Your task to perform on an android device: turn off priority inbox in the gmail app Image 0: 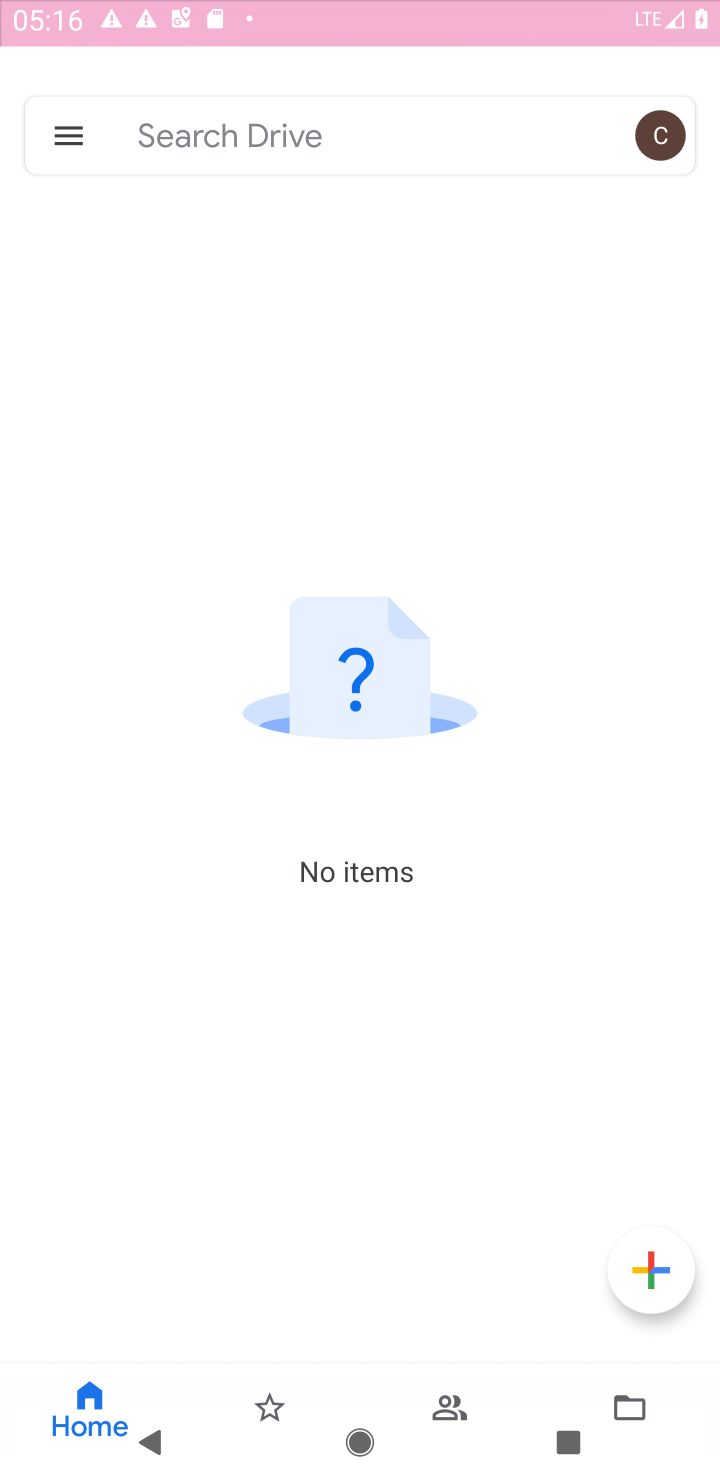
Step 0: press home button
Your task to perform on an android device: turn off priority inbox in the gmail app Image 1: 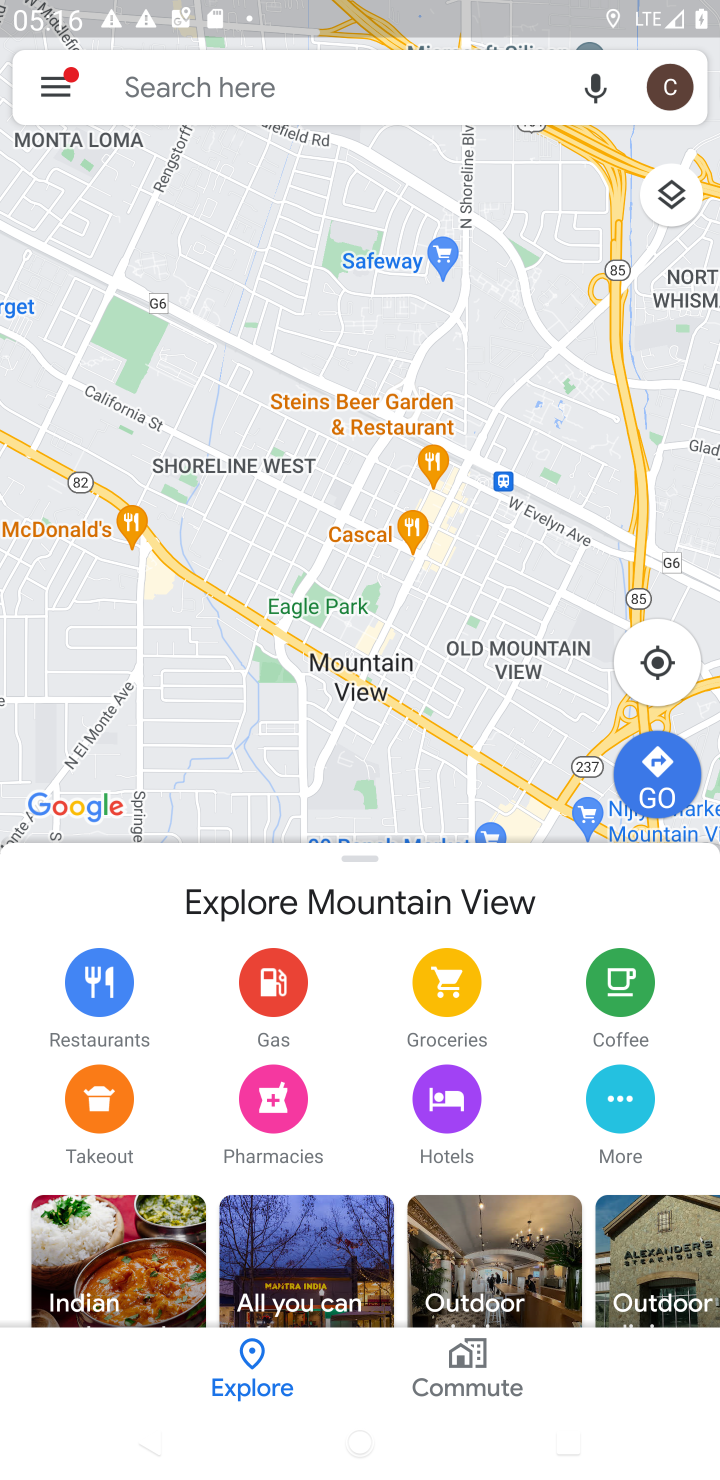
Step 1: press home button
Your task to perform on an android device: turn off priority inbox in the gmail app Image 2: 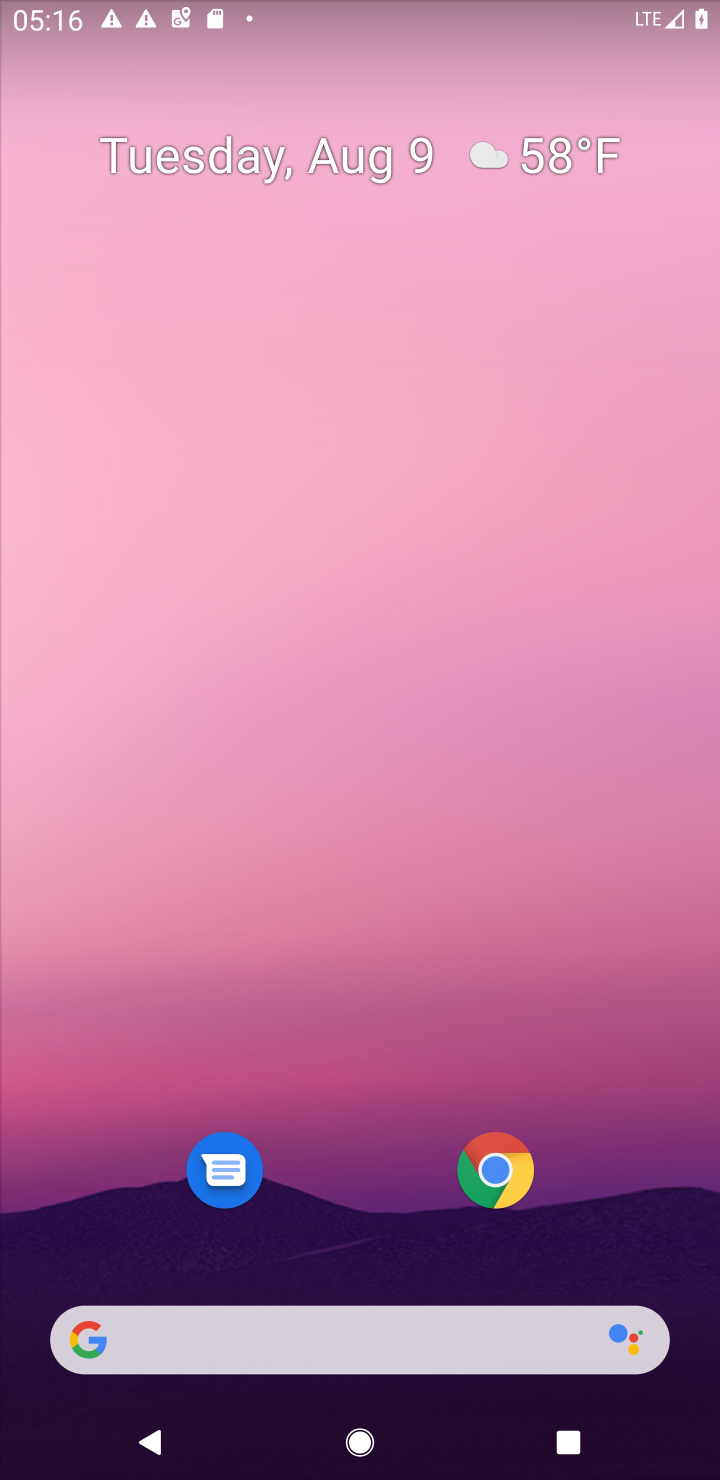
Step 2: press home button
Your task to perform on an android device: turn off priority inbox in the gmail app Image 3: 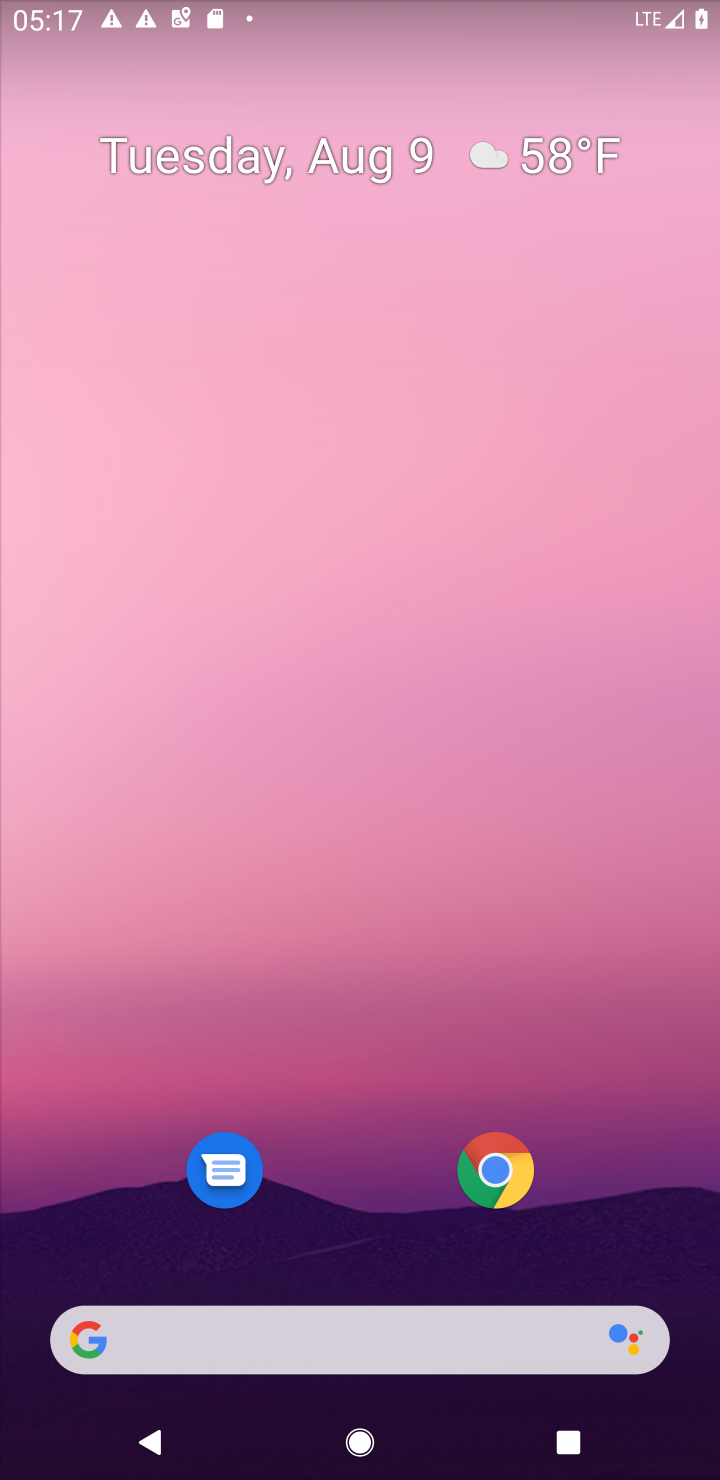
Step 3: drag from (370, 848) to (420, 45)
Your task to perform on an android device: turn off priority inbox in the gmail app Image 4: 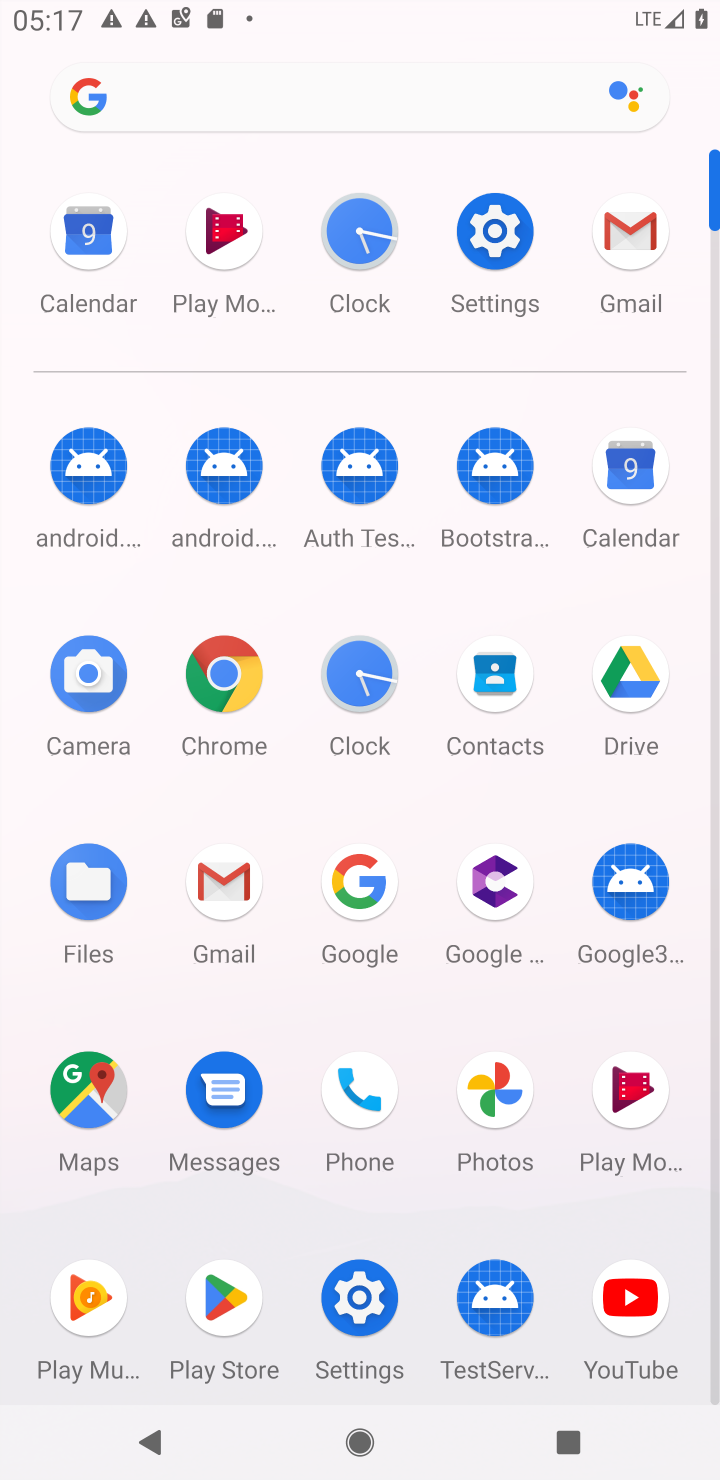
Step 4: click (646, 232)
Your task to perform on an android device: turn off priority inbox in the gmail app Image 5: 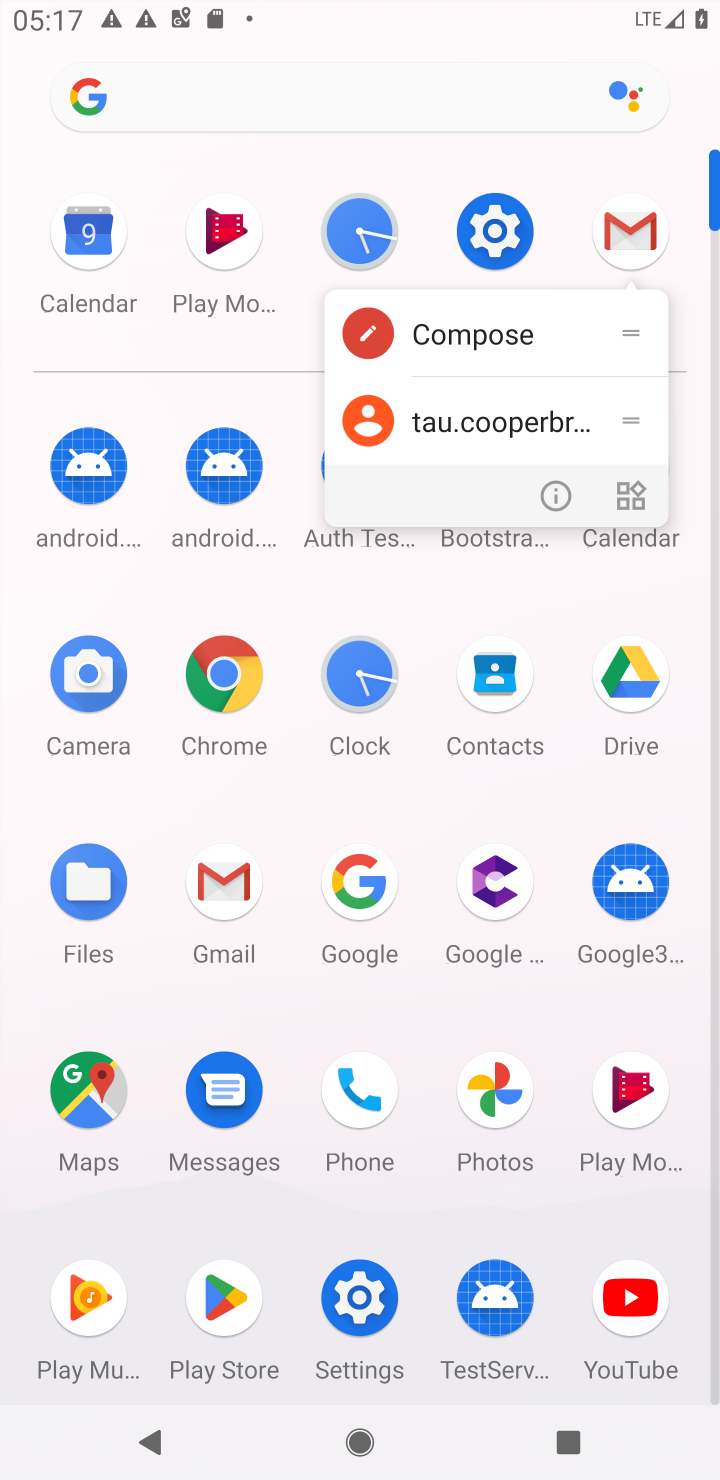
Step 5: click (621, 237)
Your task to perform on an android device: turn off priority inbox in the gmail app Image 6: 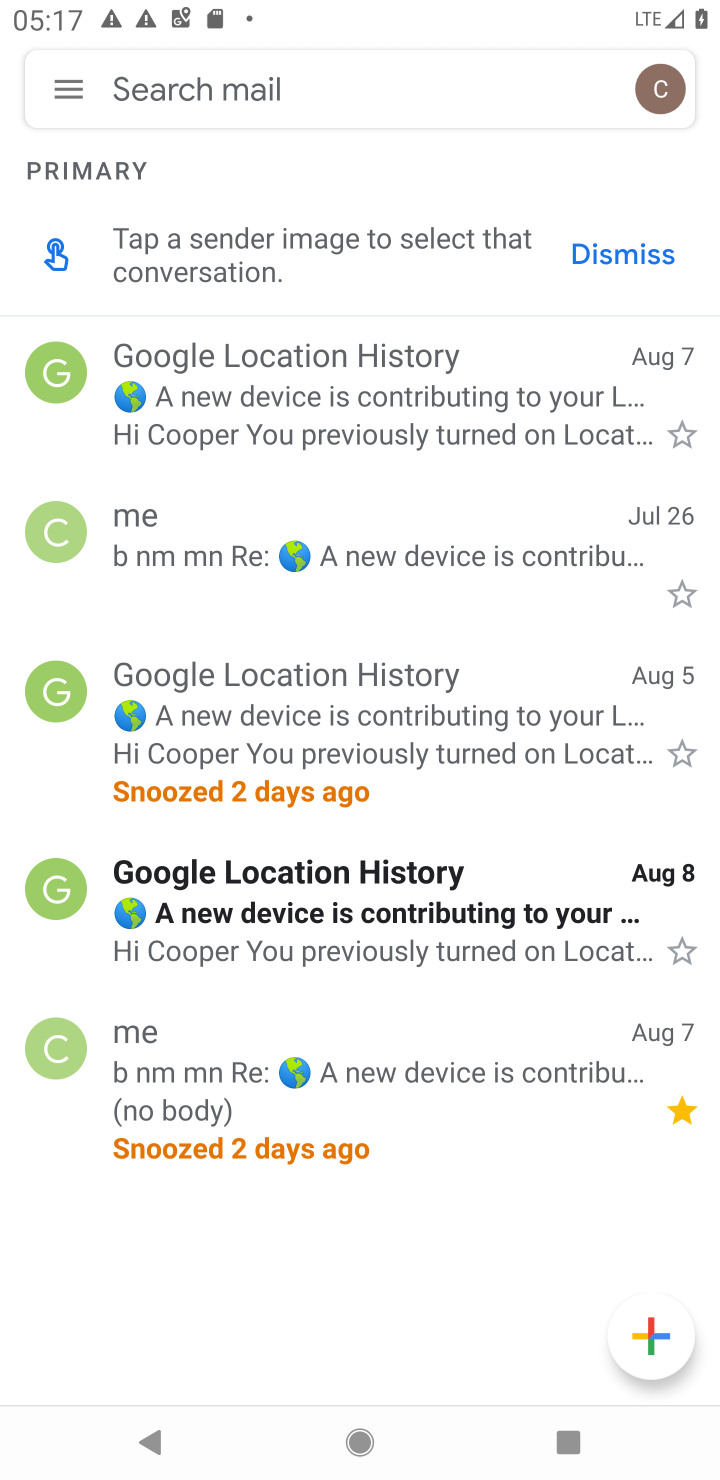
Step 6: click (57, 95)
Your task to perform on an android device: turn off priority inbox in the gmail app Image 7: 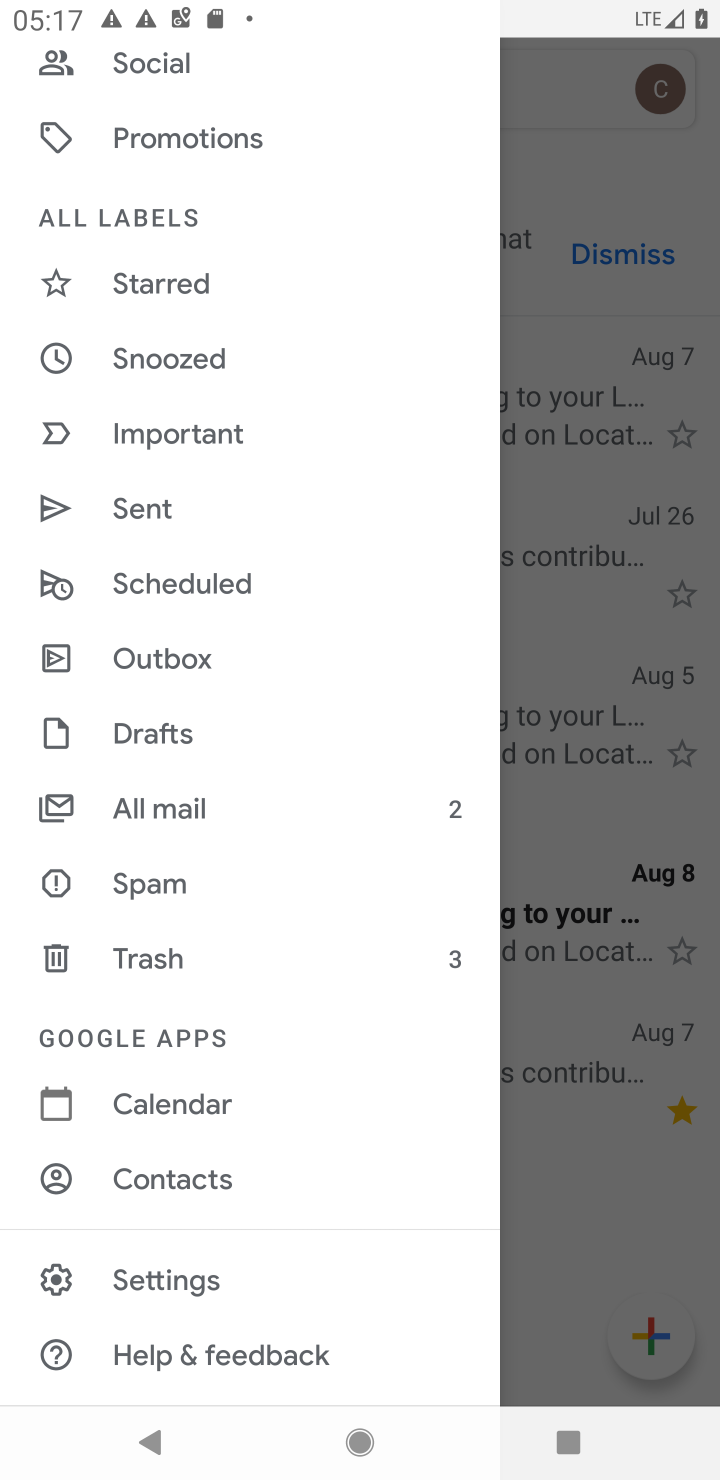
Step 7: click (153, 1276)
Your task to perform on an android device: turn off priority inbox in the gmail app Image 8: 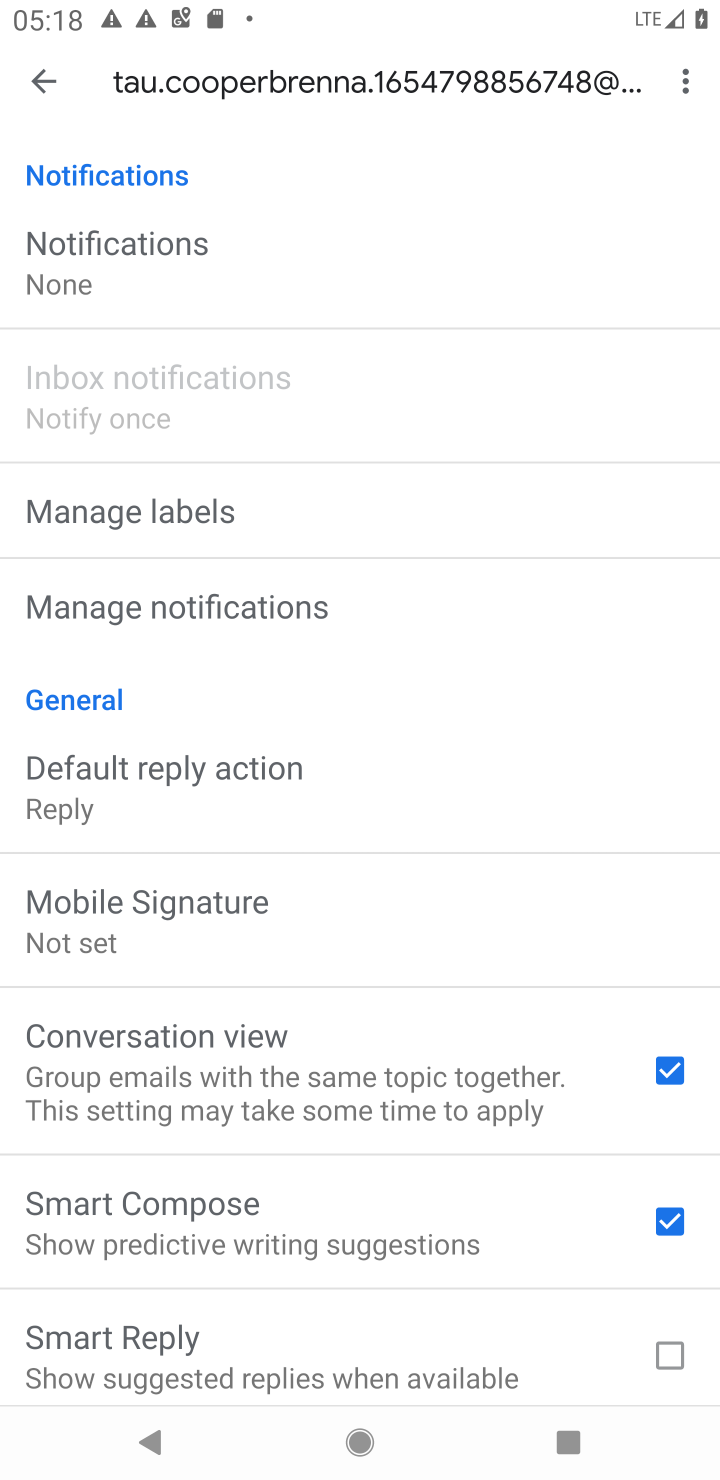
Step 8: drag from (468, 486) to (557, 1340)
Your task to perform on an android device: turn off priority inbox in the gmail app Image 9: 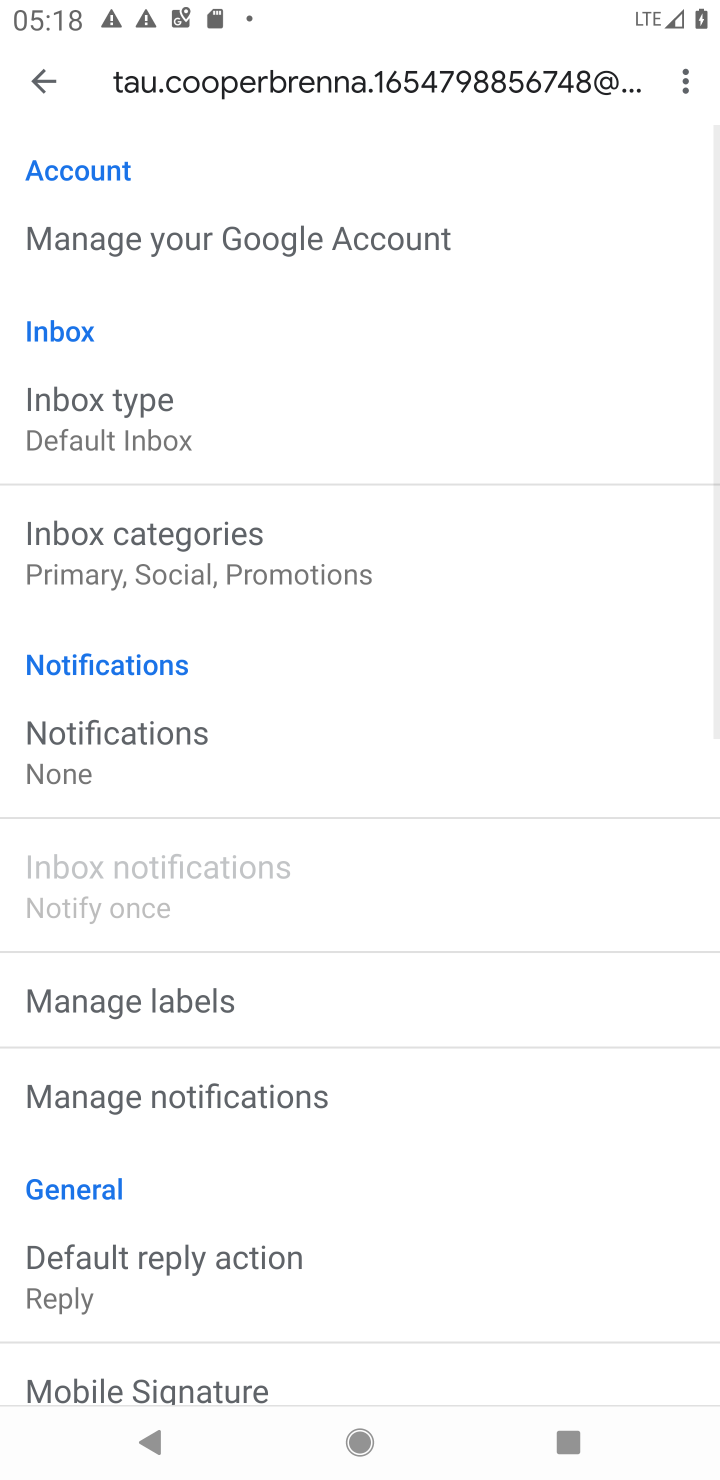
Step 9: click (115, 422)
Your task to perform on an android device: turn off priority inbox in the gmail app Image 10: 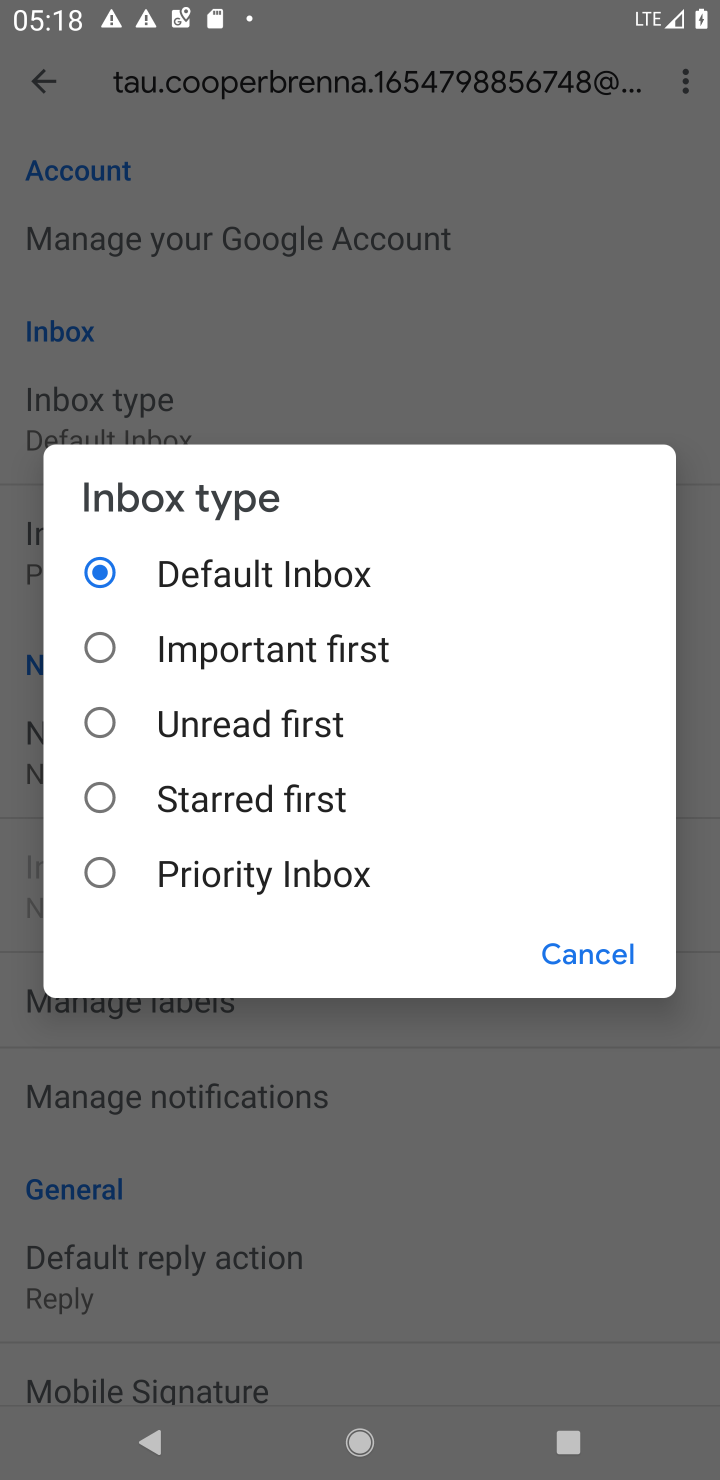
Step 10: click (105, 654)
Your task to perform on an android device: turn off priority inbox in the gmail app Image 11: 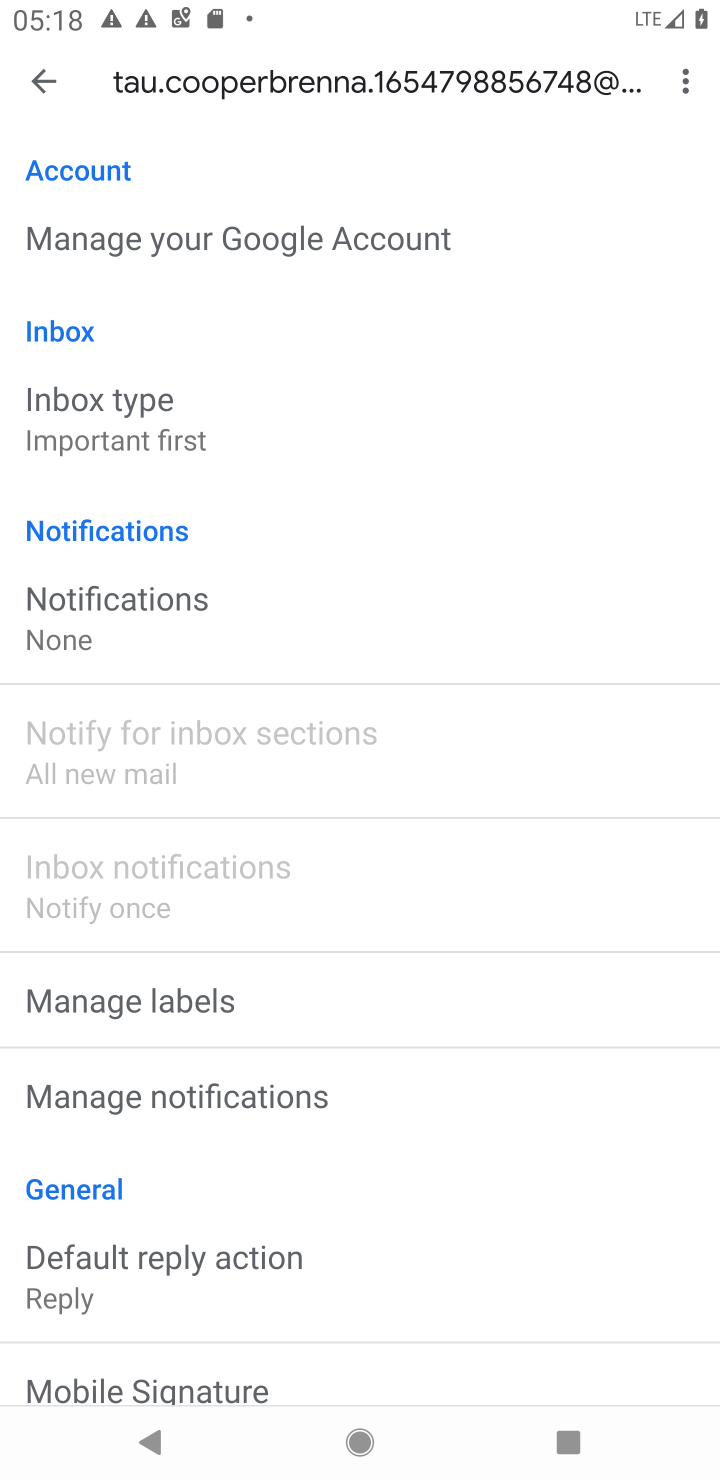
Step 11: task complete